Your task to perform on an android device: find which apps use the phone's location Image 0: 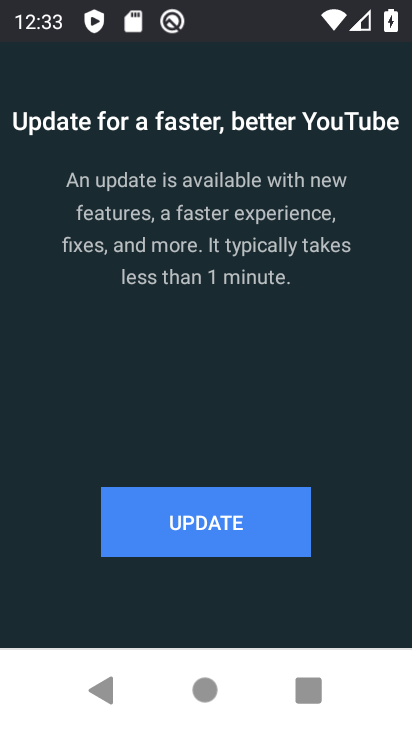
Step 0: press home button
Your task to perform on an android device: find which apps use the phone's location Image 1: 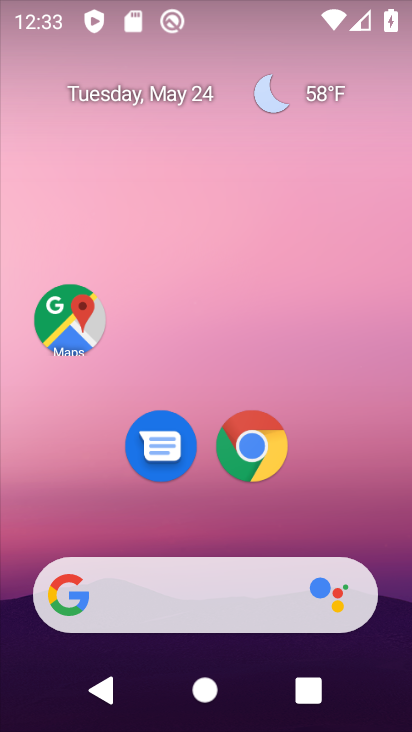
Step 1: drag from (227, 639) to (279, 175)
Your task to perform on an android device: find which apps use the phone's location Image 2: 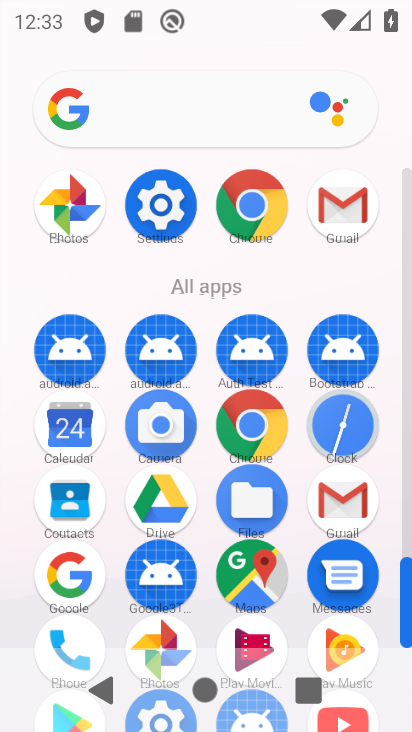
Step 2: click (177, 210)
Your task to perform on an android device: find which apps use the phone's location Image 3: 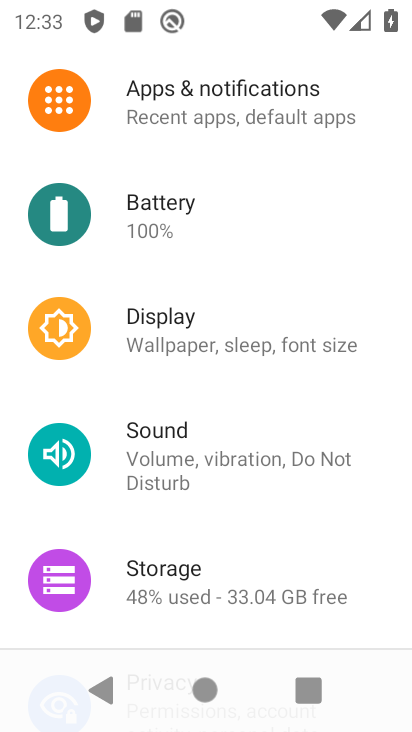
Step 3: drag from (180, 496) to (250, 95)
Your task to perform on an android device: find which apps use the phone's location Image 4: 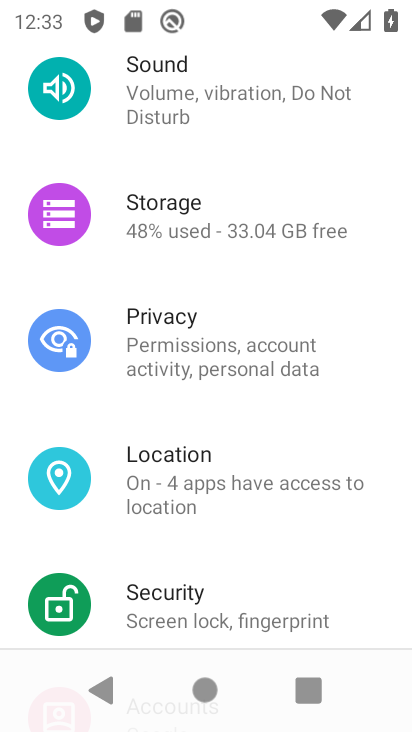
Step 4: click (187, 488)
Your task to perform on an android device: find which apps use the phone's location Image 5: 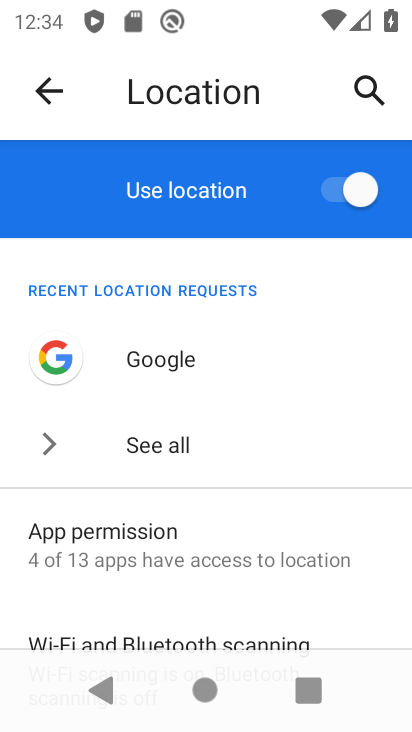
Step 5: click (157, 536)
Your task to perform on an android device: find which apps use the phone's location Image 6: 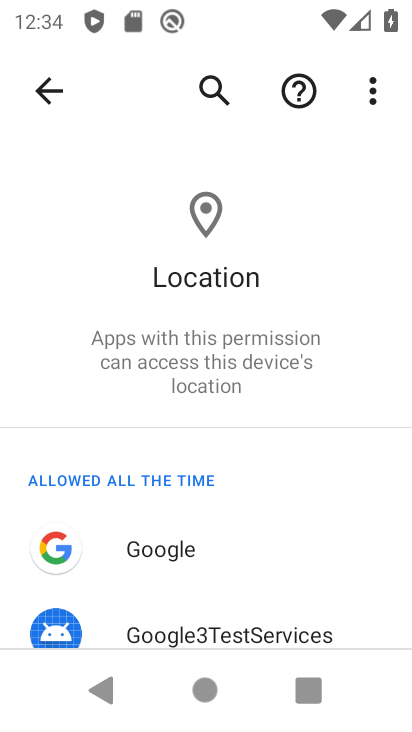
Step 6: task complete